Your task to perform on an android device: Search for sushi restaurants on Maps Image 0: 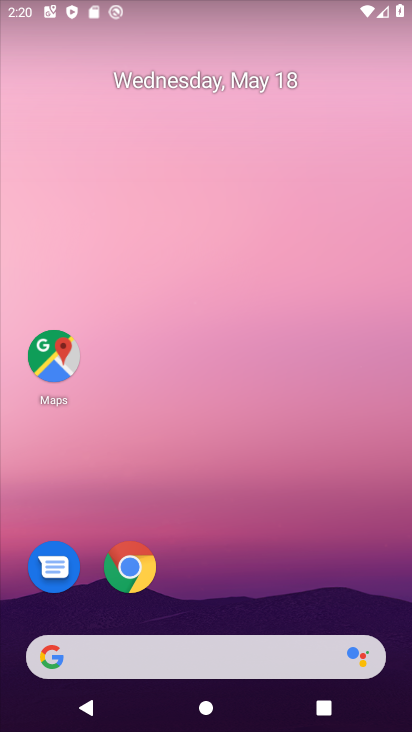
Step 0: drag from (223, 534) to (216, 270)
Your task to perform on an android device: Search for sushi restaurants on Maps Image 1: 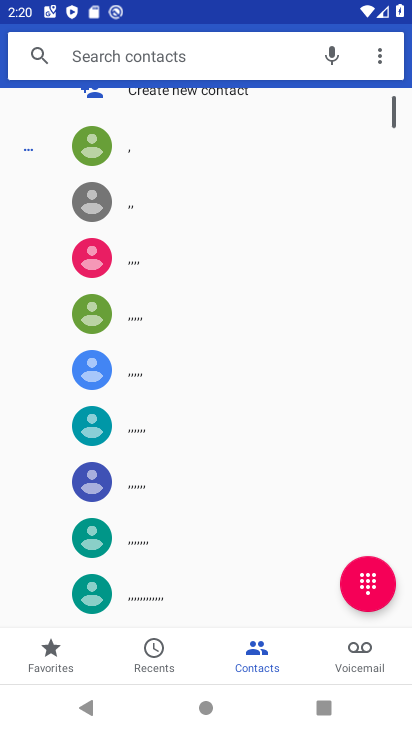
Step 1: press home button
Your task to perform on an android device: Search for sushi restaurants on Maps Image 2: 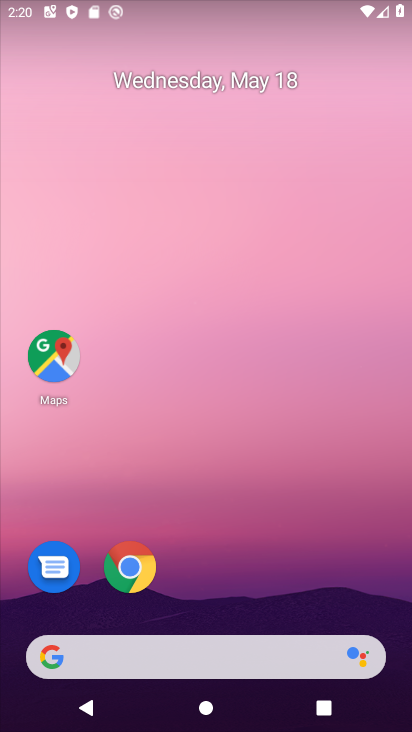
Step 2: drag from (246, 586) to (269, 219)
Your task to perform on an android device: Search for sushi restaurants on Maps Image 3: 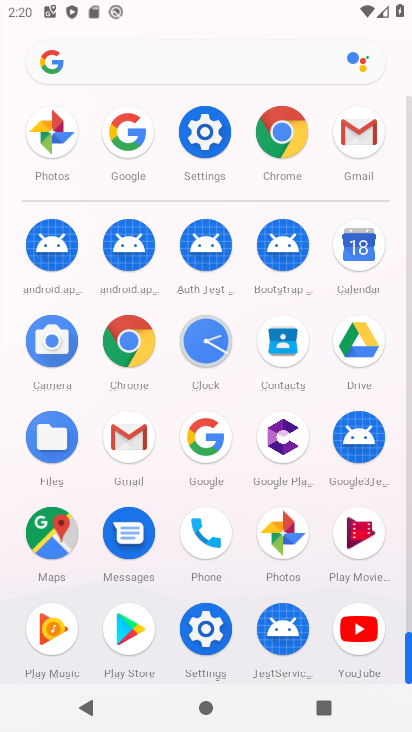
Step 3: click (34, 539)
Your task to perform on an android device: Search for sushi restaurants on Maps Image 4: 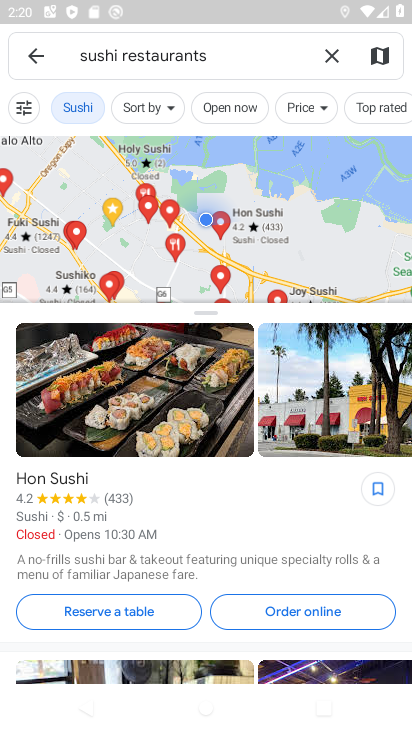
Step 4: task complete